Your task to perform on an android device: open app "Facebook Messenger" (install if not already installed) Image 0: 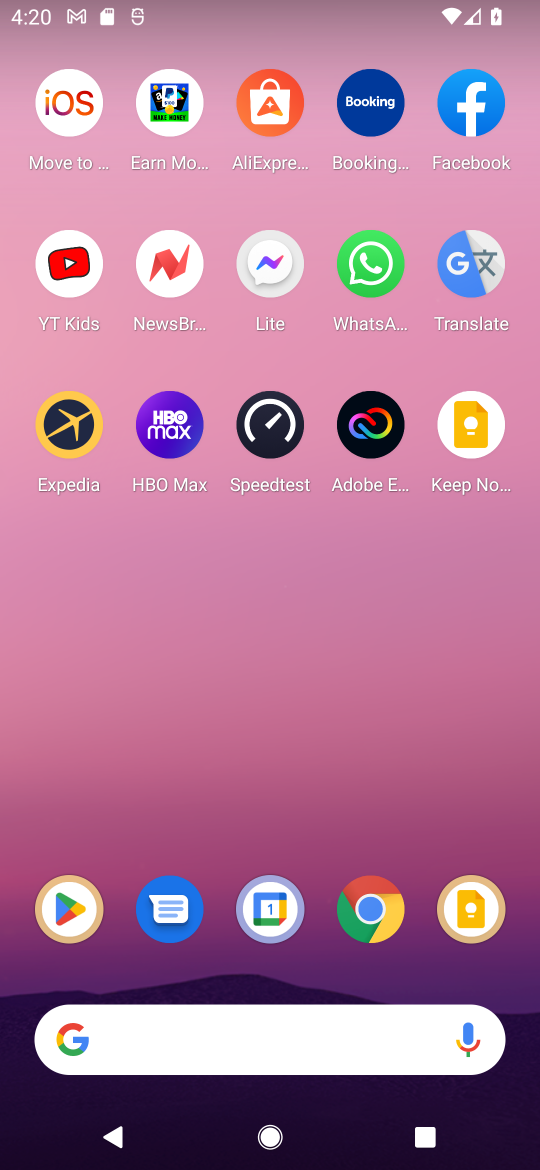
Step 0: click (89, 919)
Your task to perform on an android device: open app "Facebook Messenger" (install if not already installed) Image 1: 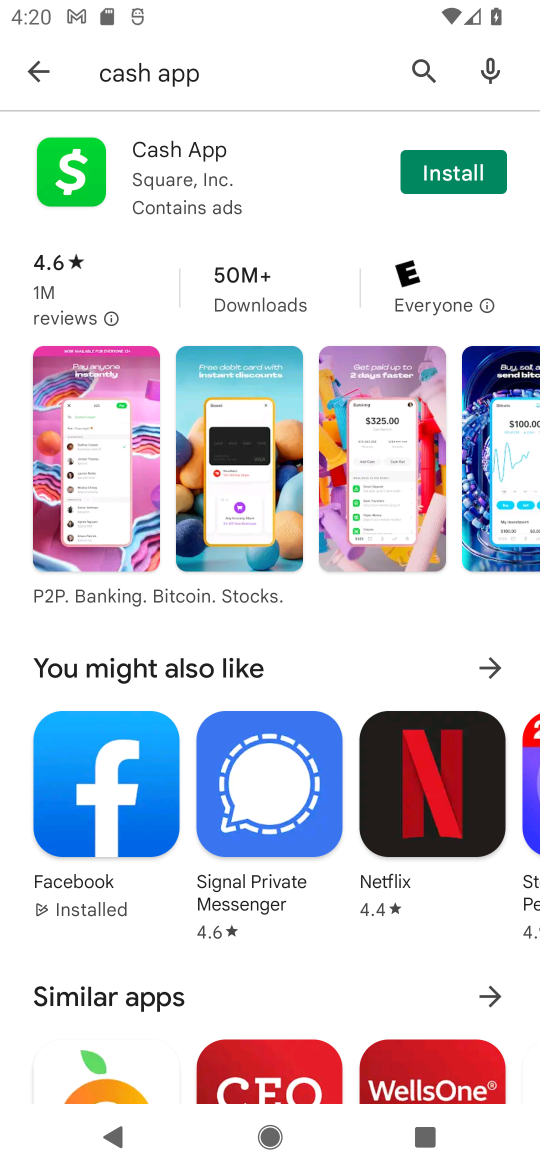
Step 1: click (256, 87)
Your task to perform on an android device: open app "Facebook Messenger" (install if not already installed) Image 2: 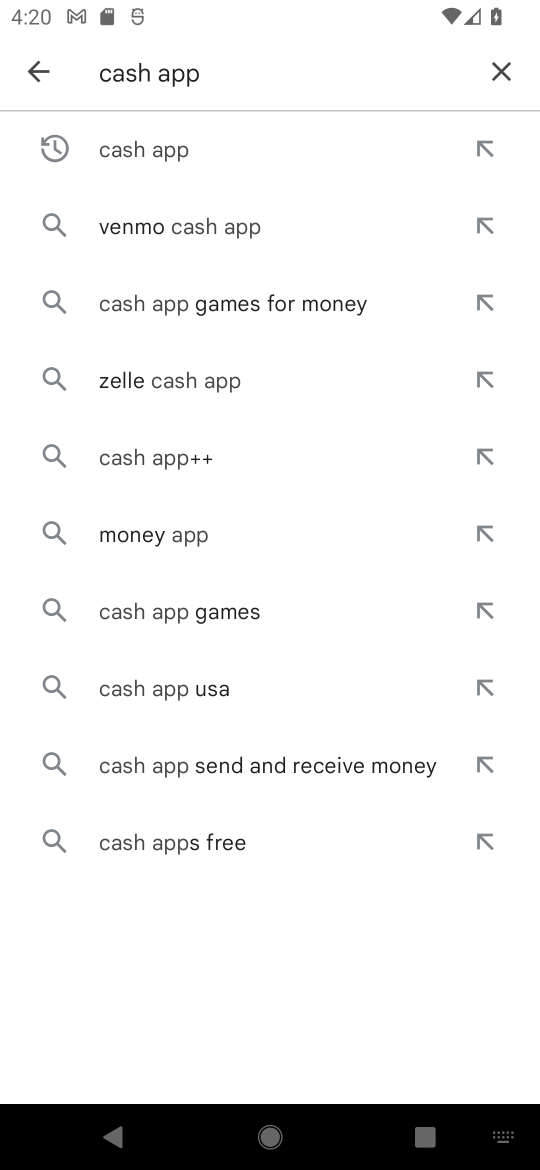
Step 2: click (501, 68)
Your task to perform on an android device: open app "Facebook Messenger" (install if not already installed) Image 3: 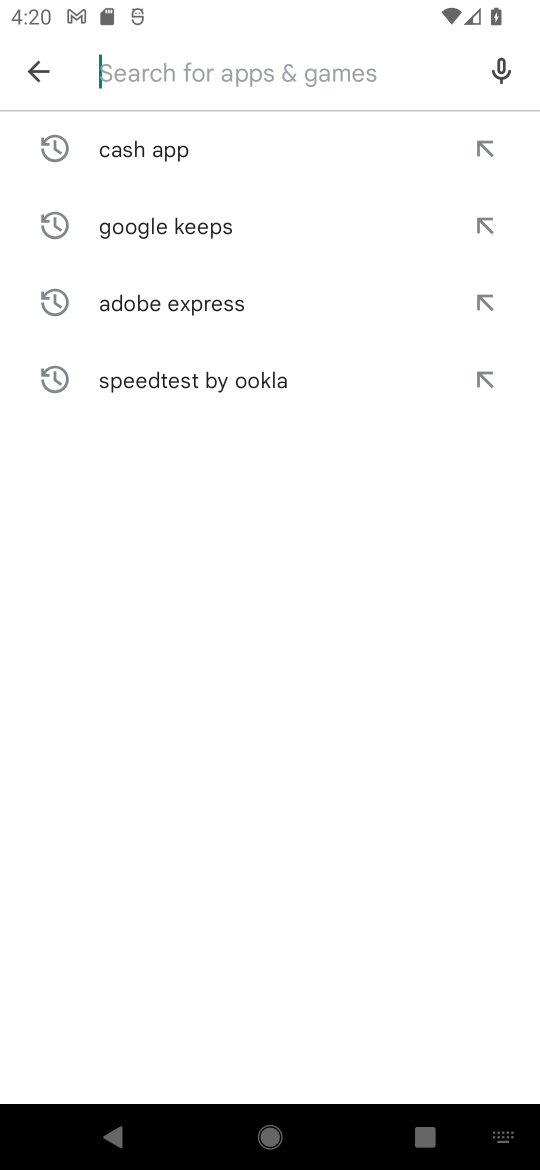
Step 3: type "Facebook messenger"
Your task to perform on an android device: open app "Facebook Messenger" (install if not already installed) Image 4: 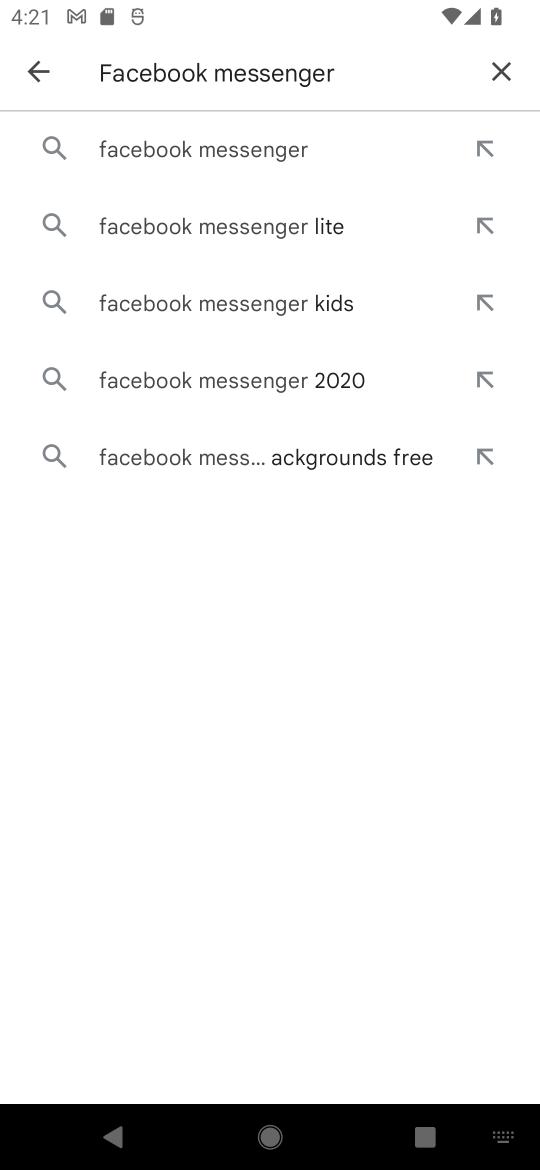
Step 4: click (178, 164)
Your task to perform on an android device: open app "Facebook Messenger" (install if not already installed) Image 5: 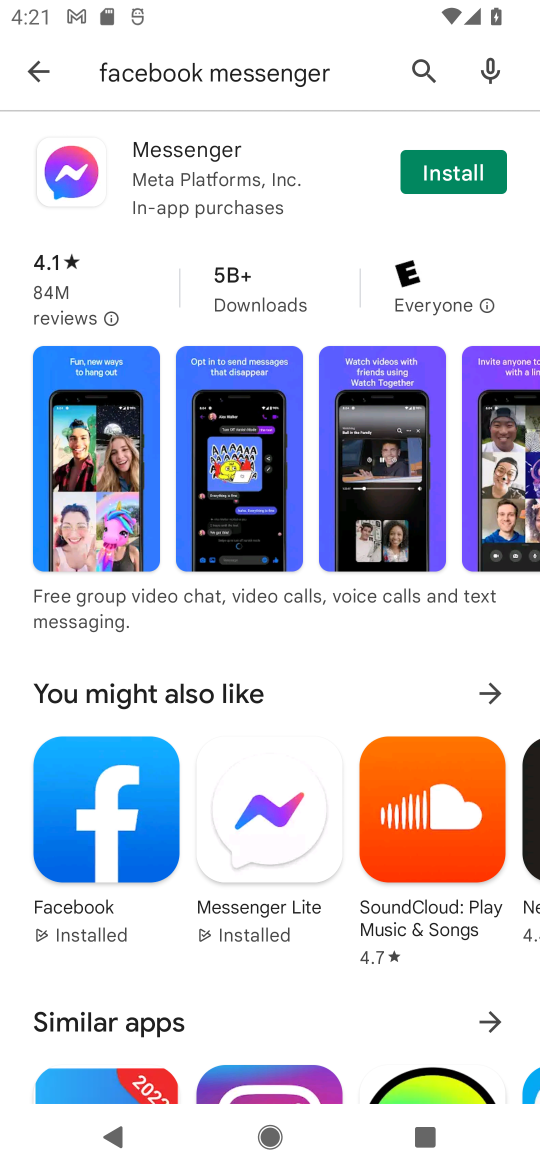
Step 5: click (424, 190)
Your task to perform on an android device: open app "Facebook Messenger" (install if not already installed) Image 6: 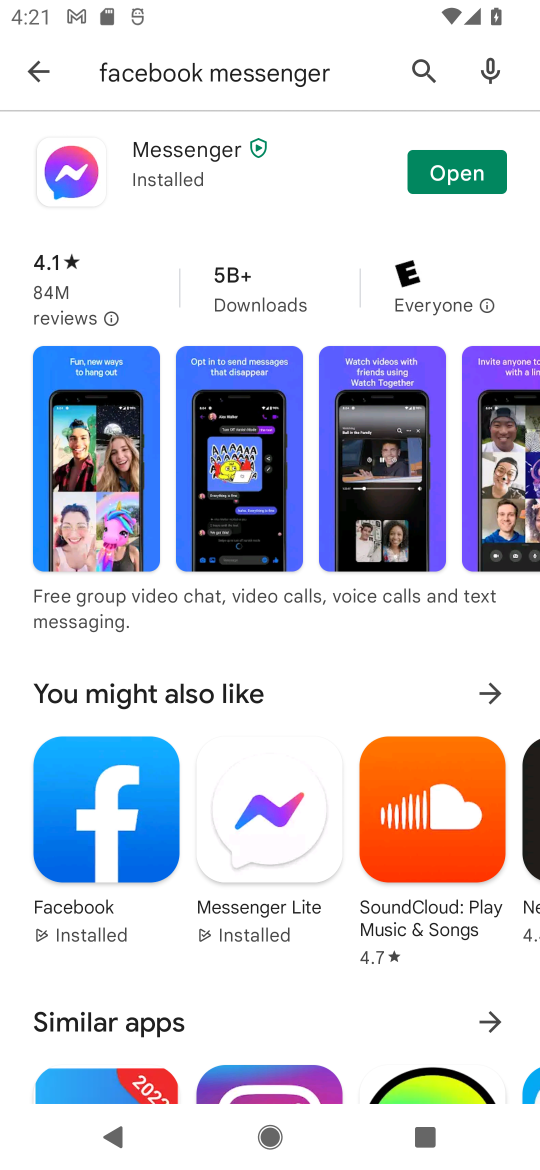
Step 6: click (465, 176)
Your task to perform on an android device: open app "Facebook Messenger" (install if not already installed) Image 7: 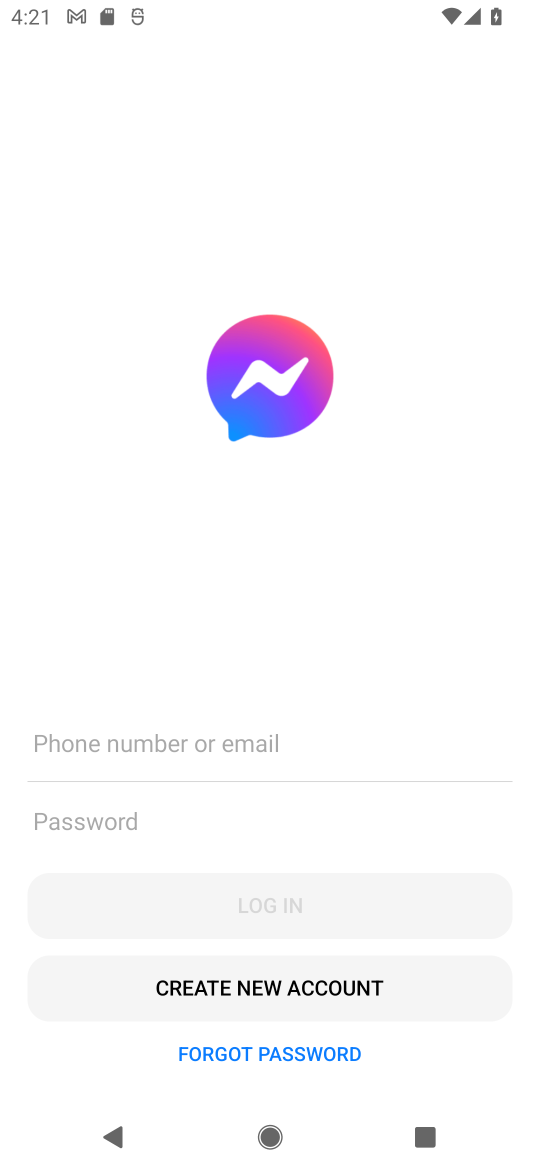
Step 7: task complete